Your task to perform on an android device: Open location settings Image 0: 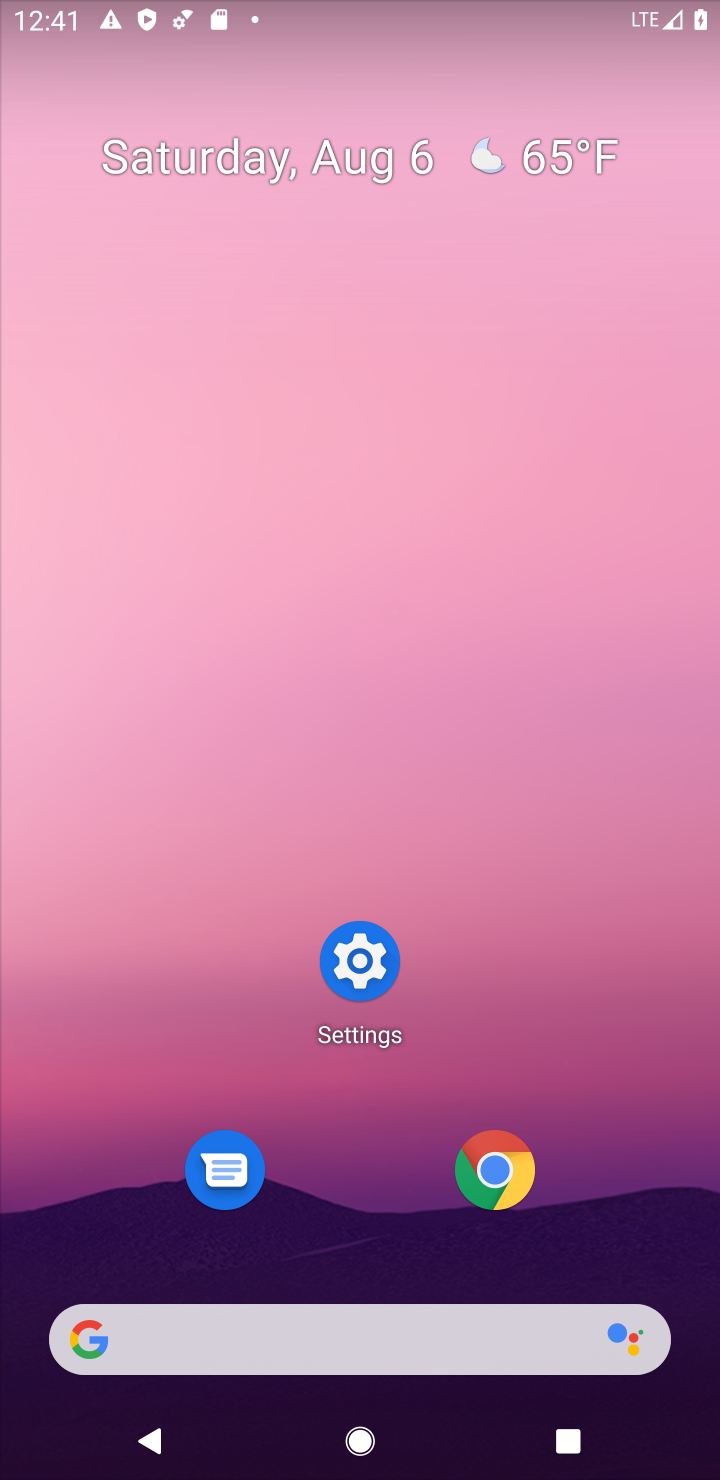
Step 0: click (355, 981)
Your task to perform on an android device: Open location settings Image 1: 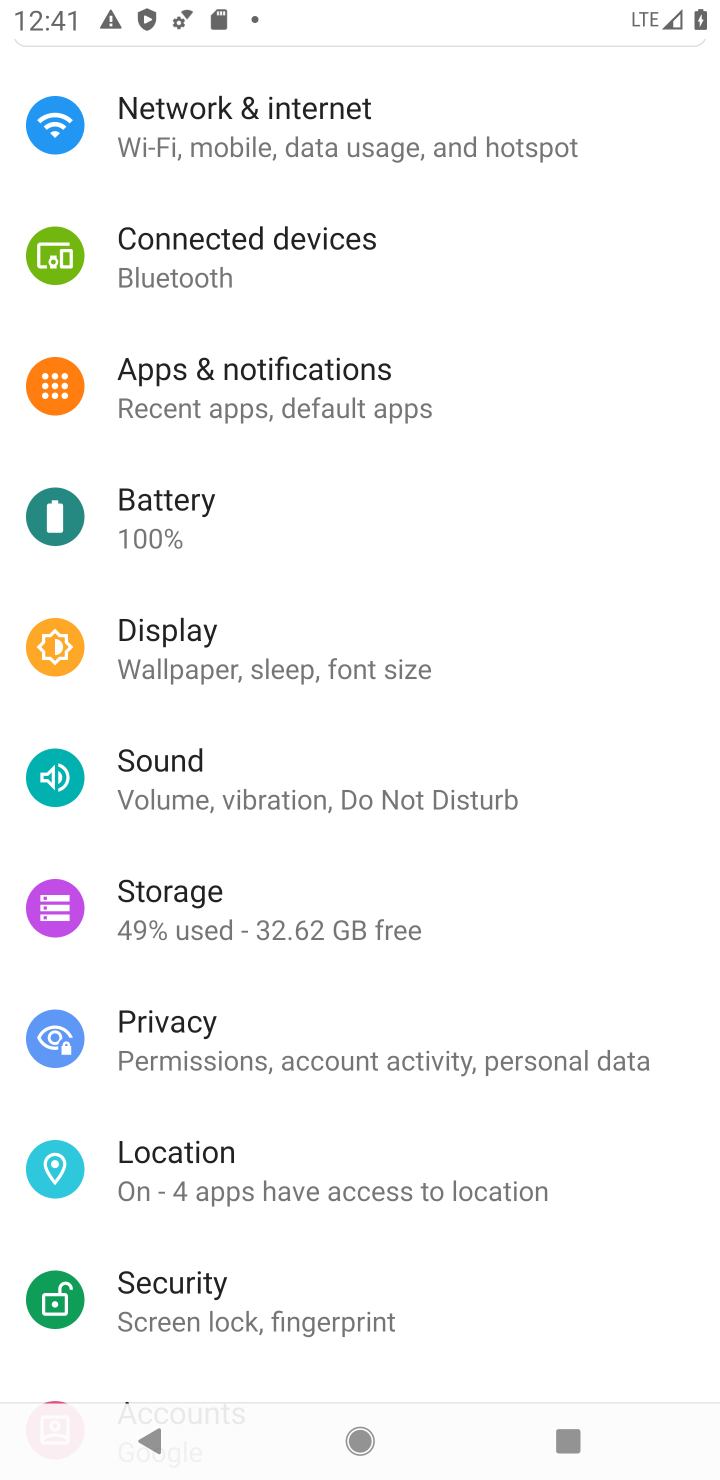
Step 1: click (226, 1157)
Your task to perform on an android device: Open location settings Image 2: 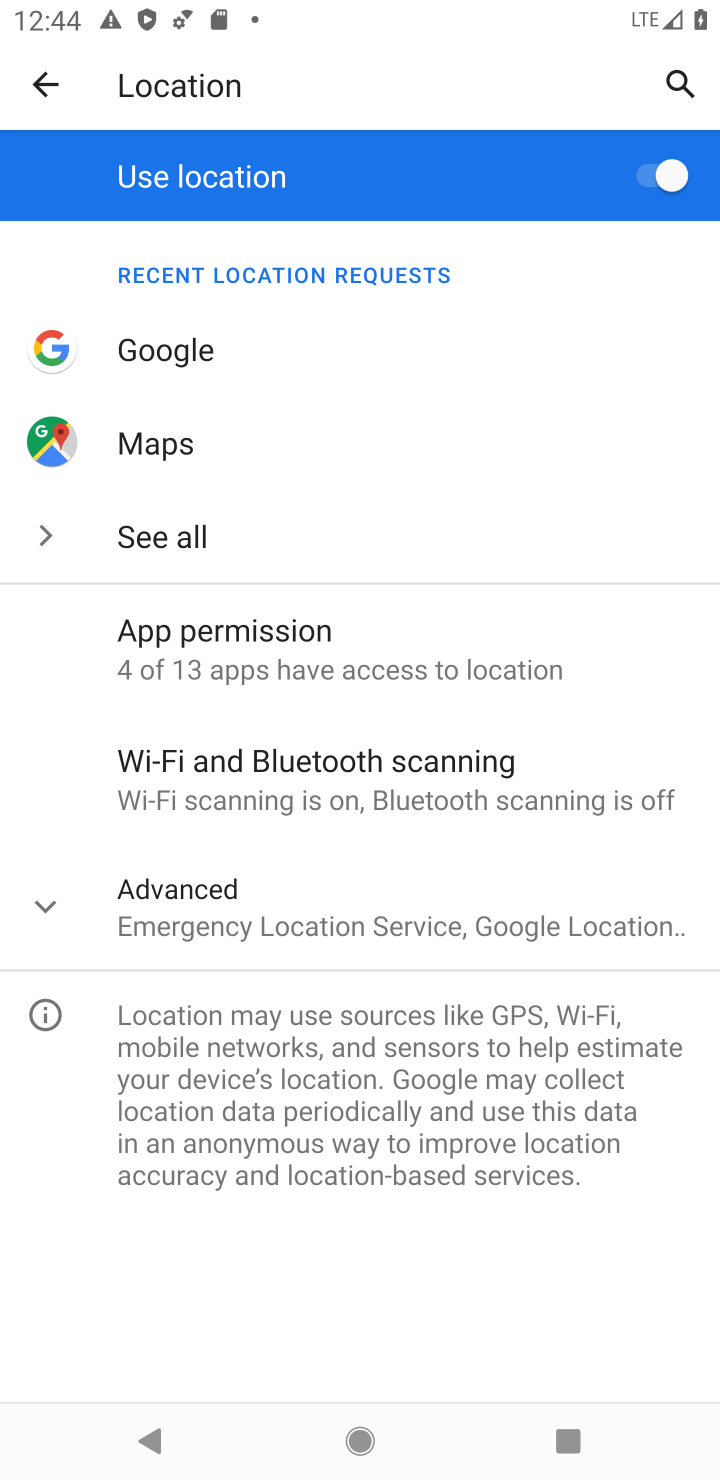
Step 2: task complete